Your task to perform on an android device: Show me recent news Image 0: 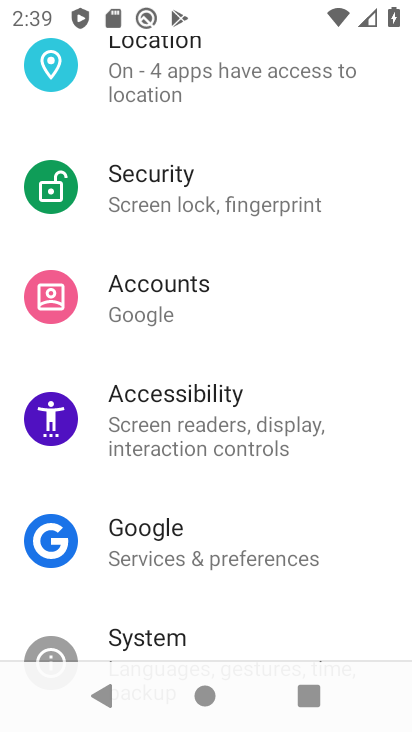
Step 0: press back button
Your task to perform on an android device: Show me recent news Image 1: 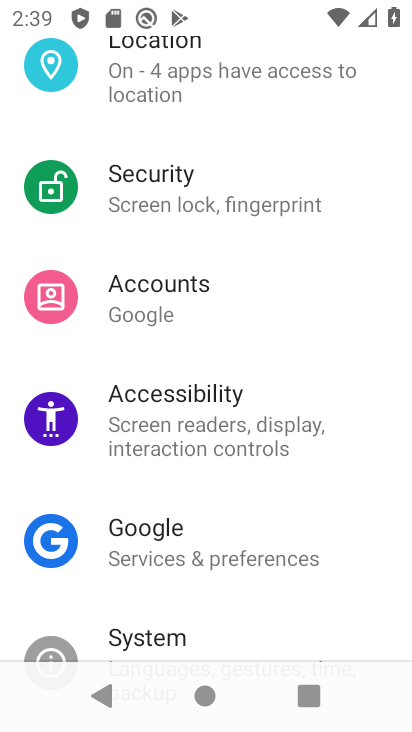
Step 1: task complete